Your task to perform on an android device: What's on my calendar tomorrow? Image 0: 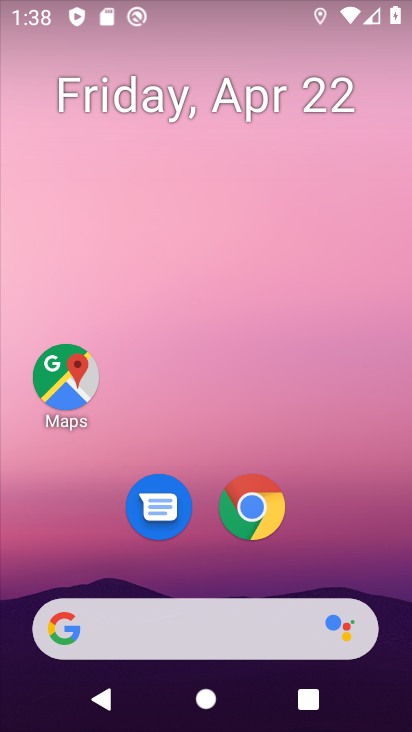
Step 0: drag from (169, 623) to (297, 79)
Your task to perform on an android device: What's on my calendar tomorrow? Image 1: 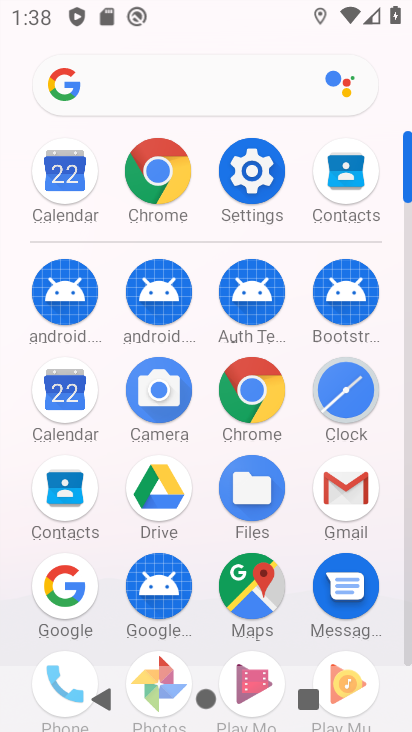
Step 1: click (53, 414)
Your task to perform on an android device: What's on my calendar tomorrow? Image 2: 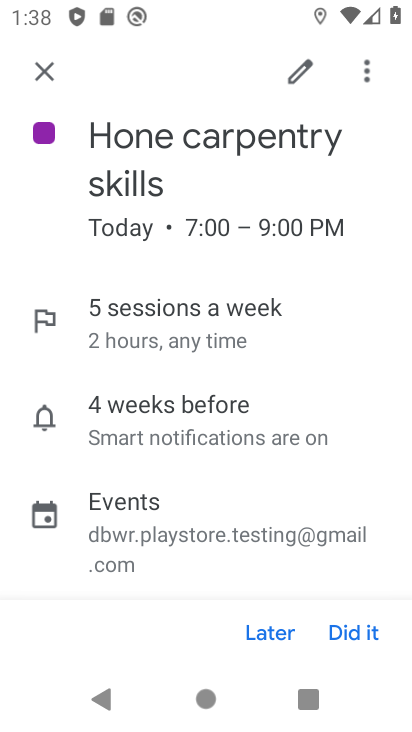
Step 2: click (37, 68)
Your task to perform on an android device: What's on my calendar tomorrow? Image 3: 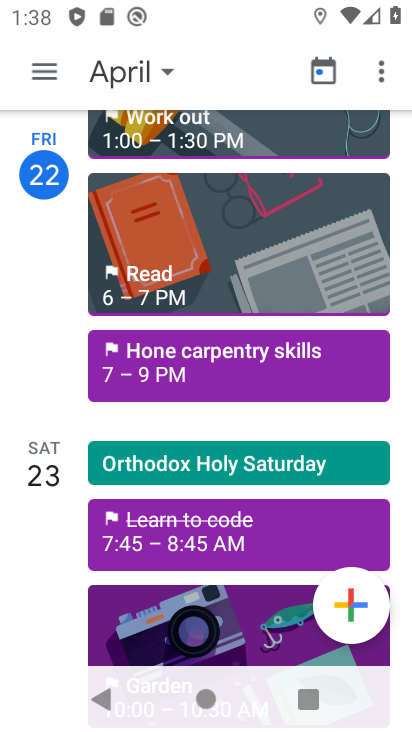
Step 3: click (103, 76)
Your task to perform on an android device: What's on my calendar tomorrow? Image 4: 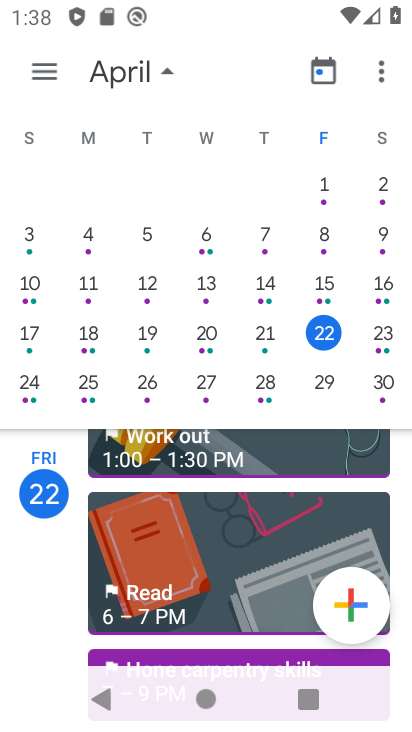
Step 4: click (381, 333)
Your task to perform on an android device: What's on my calendar tomorrow? Image 5: 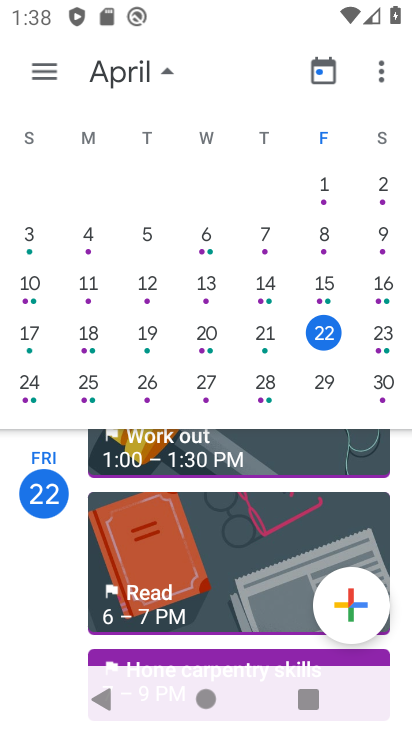
Step 5: click (387, 336)
Your task to perform on an android device: What's on my calendar tomorrow? Image 6: 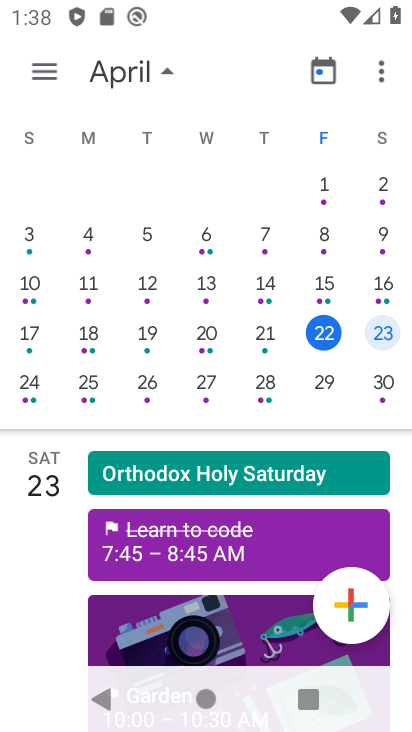
Step 6: click (38, 62)
Your task to perform on an android device: What's on my calendar tomorrow? Image 7: 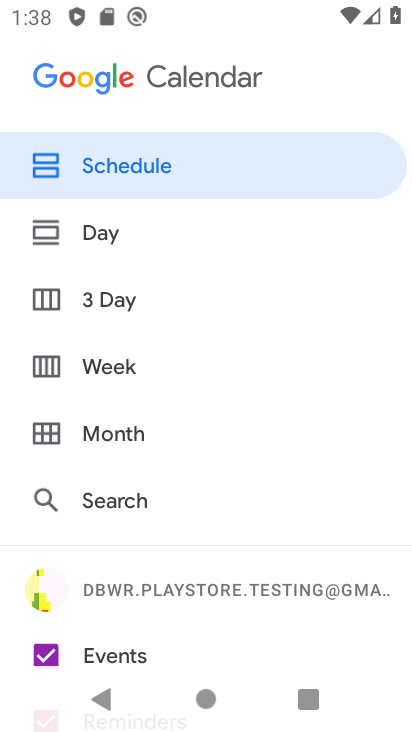
Step 7: click (136, 174)
Your task to perform on an android device: What's on my calendar tomorrow? Image 8: 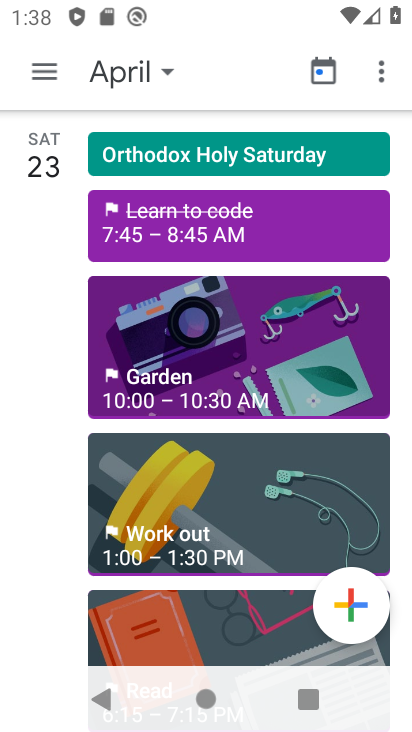
Step 8: task complete